Your task to perform on an android device: turn off data saver in the chrome app Image 0: 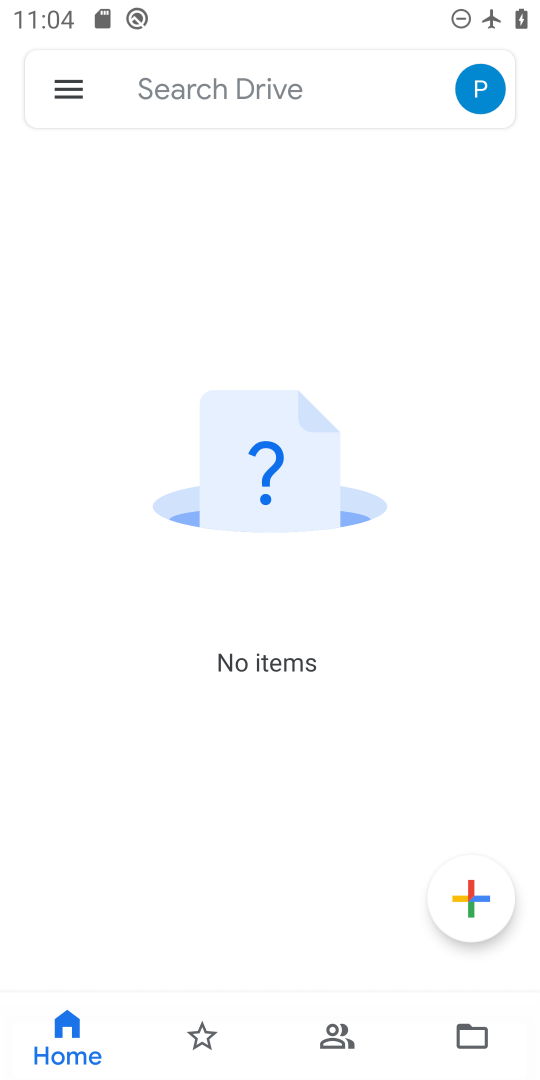
Step 0: press home button
Your task to perform on an android device: turn off data saver in the chrome app Image 1: 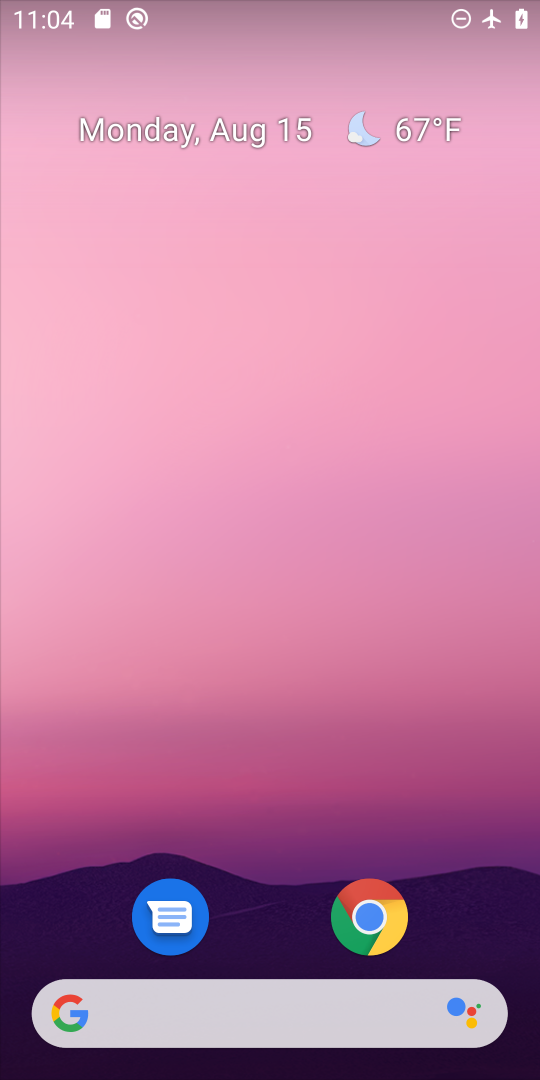
Step 1: click (364, 895)
Your task to perform on an android device: turn off data saver in the chrome app Image 2: 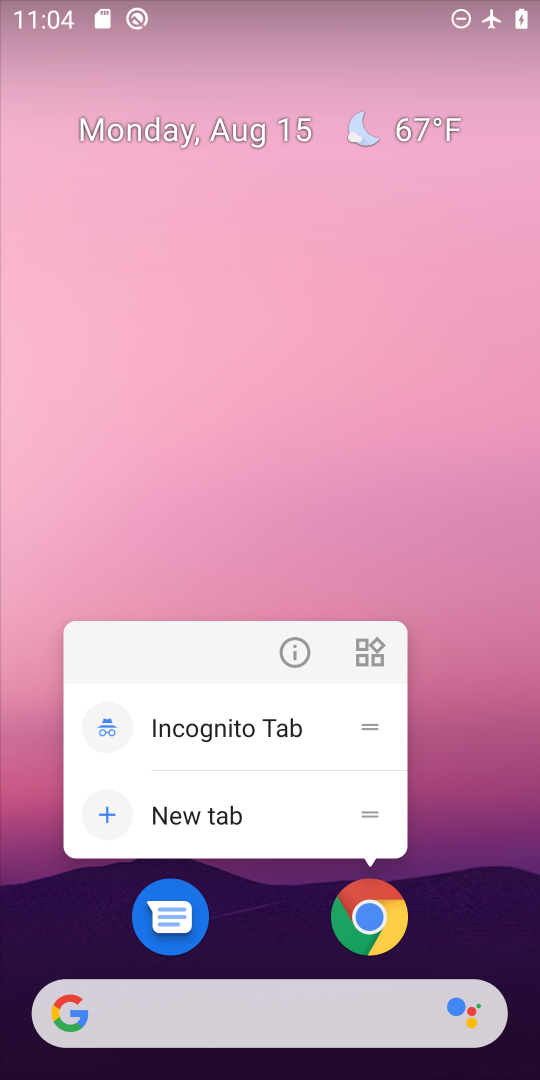
Step 2: click (364, 895)
Your task to perform on an android device: turn off data saver in the chrome app Image 3: 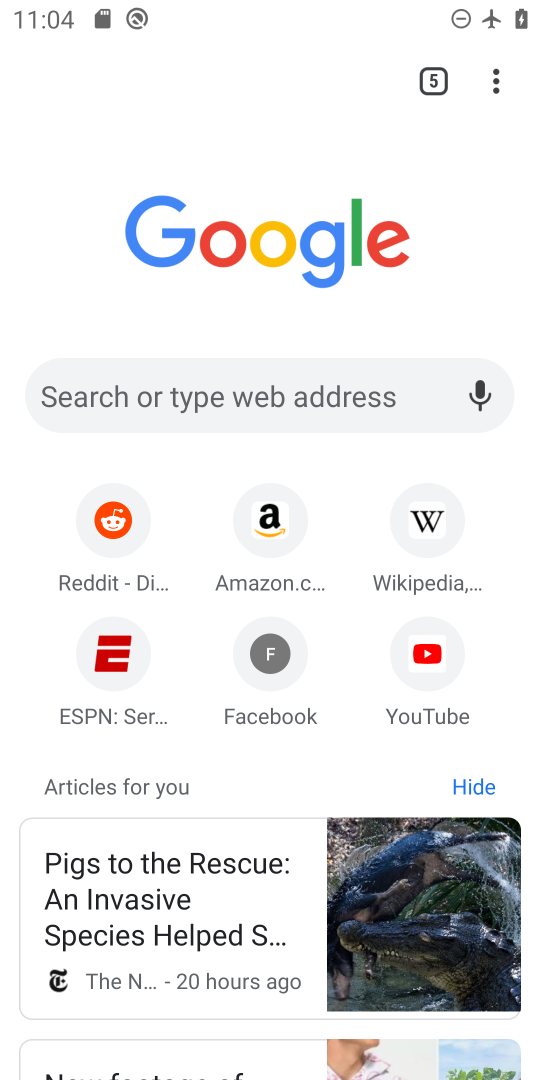
Step 3: click (492, 82)
Your task to perform on an android device: turn off data saver in the chrome app Image 4: 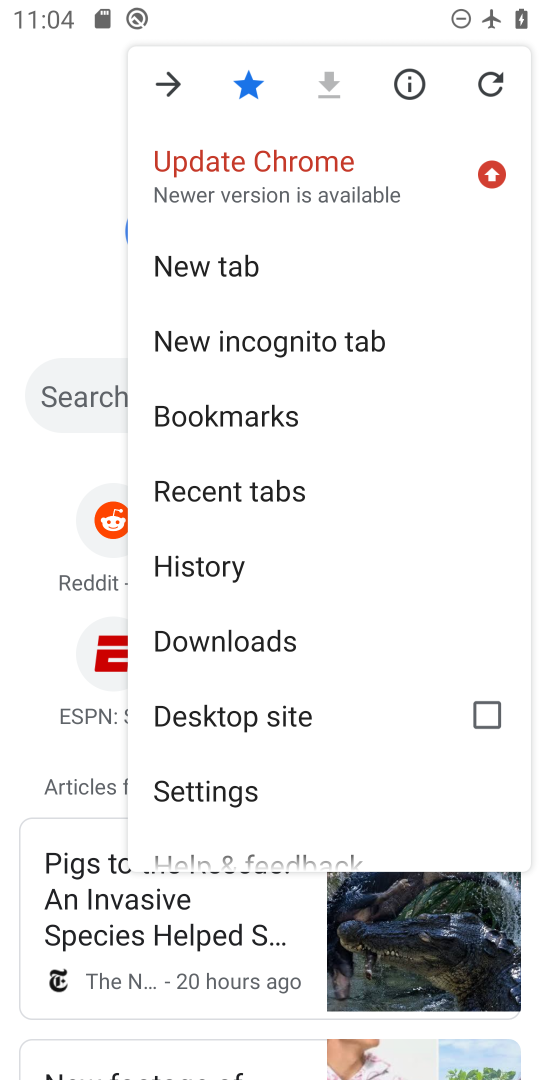
Step 4: click (243, 793)
Your task to perform on an android device: turn off data saver in the chrome app Image 5: 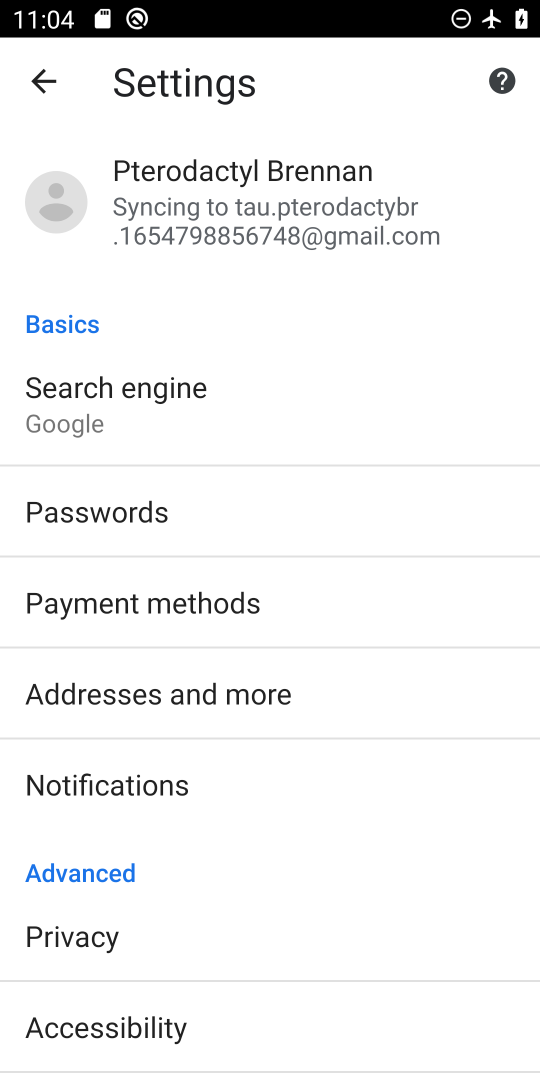
Step 5: drag from (342, 727) to (367, 417)
Your task to perform on an android device: turn off data saver in the chrome app Image 6: 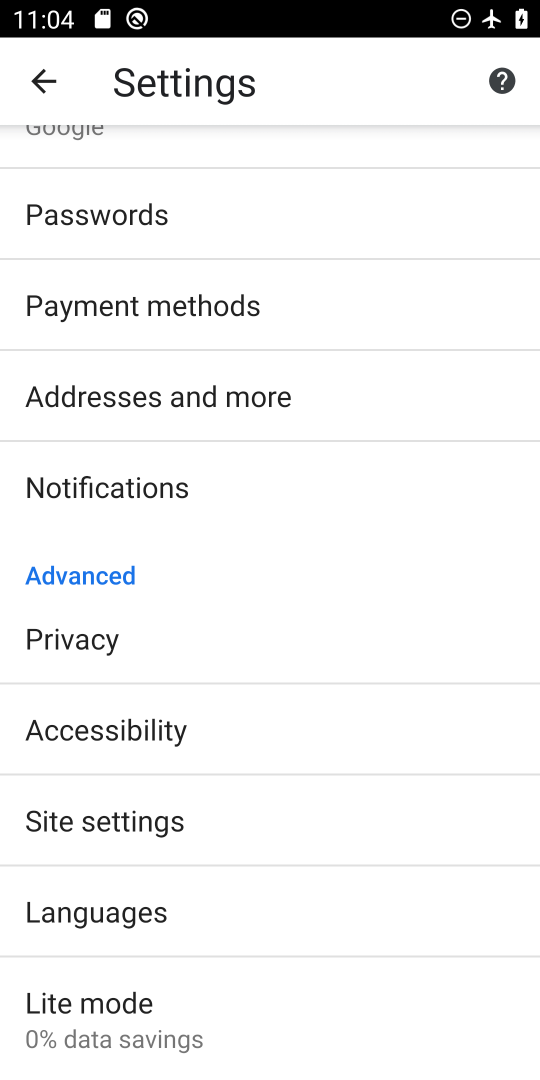
Step 6: click (209, 1006)
Your task to perform on an android device: turn off data saver in the chrome app Image 7: 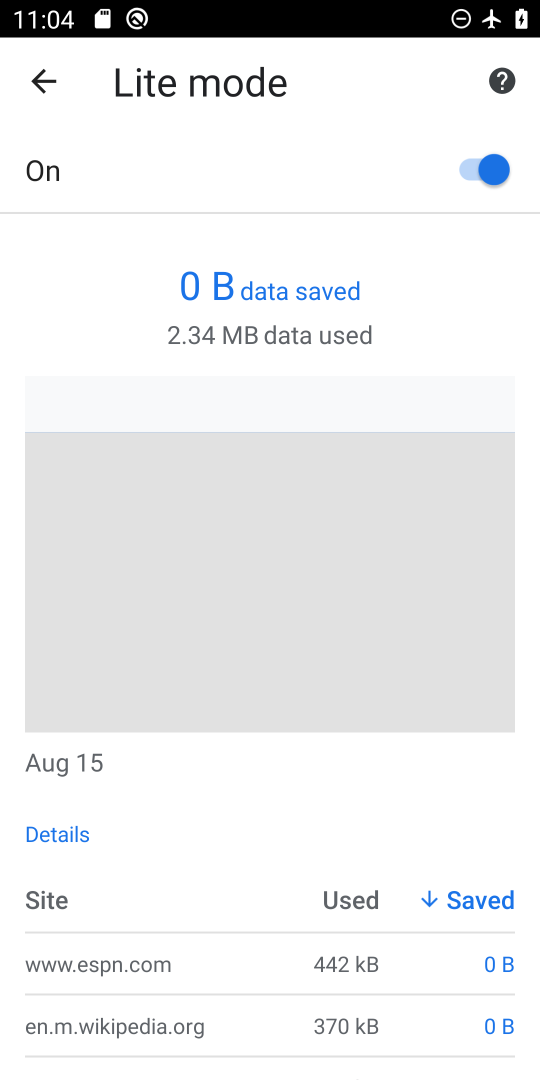
Step 7: click (467, 156)
Your task to perform on an android device: turn off data saver in the chrome app Image 8: 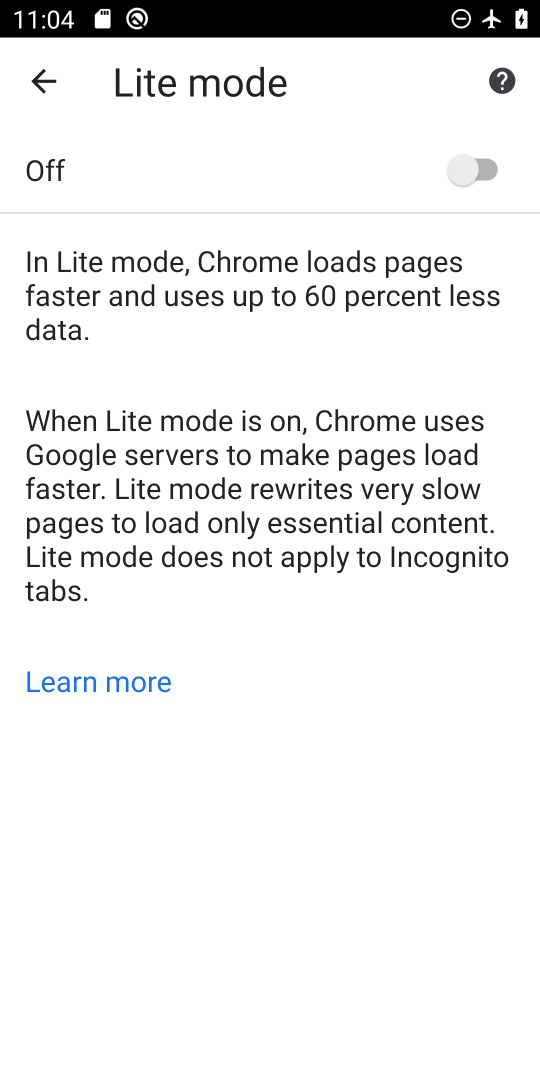
Step 8: task complete